Your task to perform on an android device: toggle data saver in the chrome app Image 0: 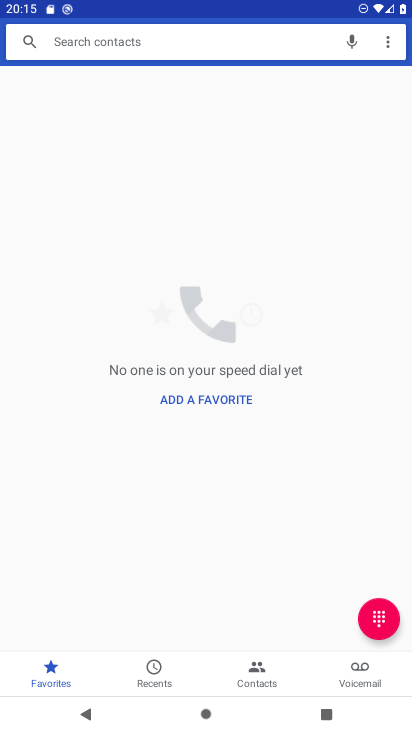
Step 0: press home button
Your task to perform on an android device: toggle data saver in the chrome app Image 1: 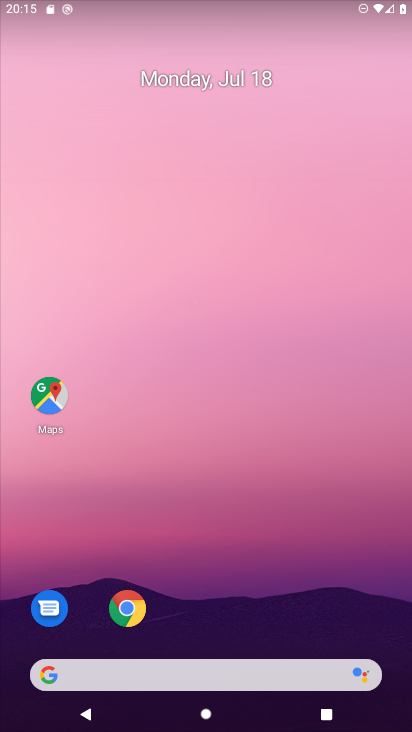
Step 1: click (130, 611)
Your task to perform on an android device: toggle data saver in the chrome app Image 2: 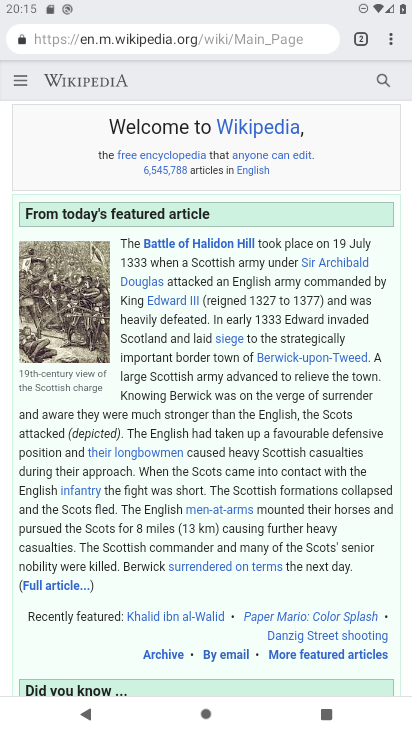
Step 2: click (386, 38)
Your task to perform on an android device: toggle data saver in the chrome app Image 3: 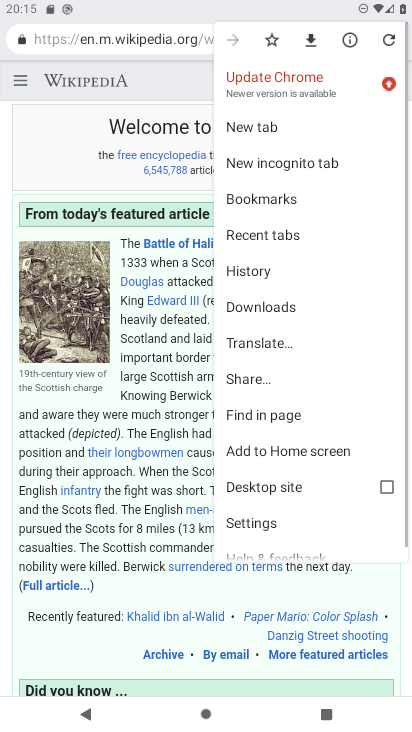
Step 3: click (272, 527)
Your task to perform on an android device: toggle data saver in the chrome app Image 4: 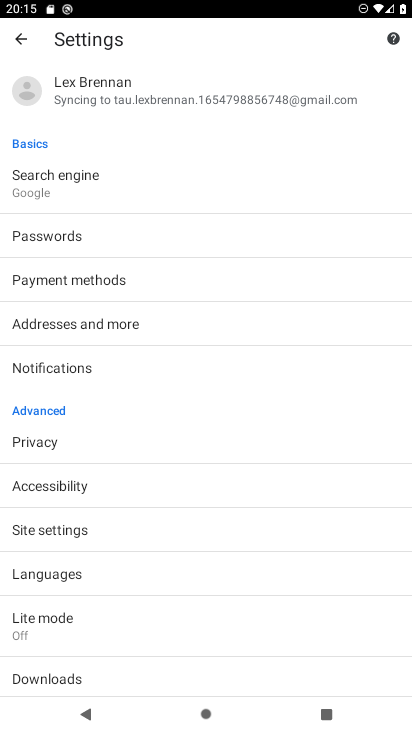
Step 4: drag from (67, 657) to (68, 496)
Your task to perform on an android device: toggle data saver in the chrome app Image 5: 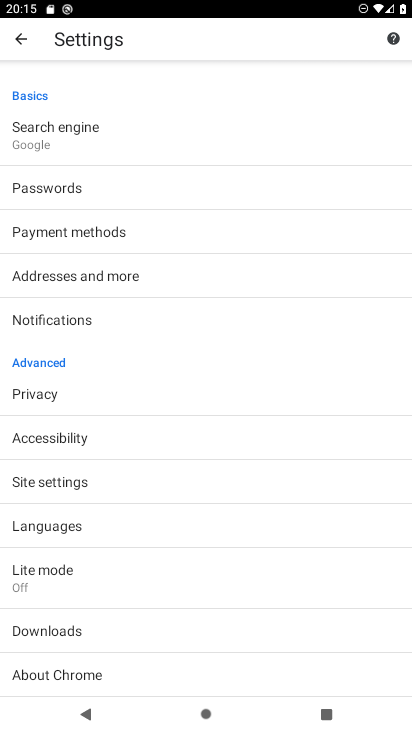
Step 5: click (84, 575)
Your task to perform on an android device: toggle data saver in the chrome app Image 6: 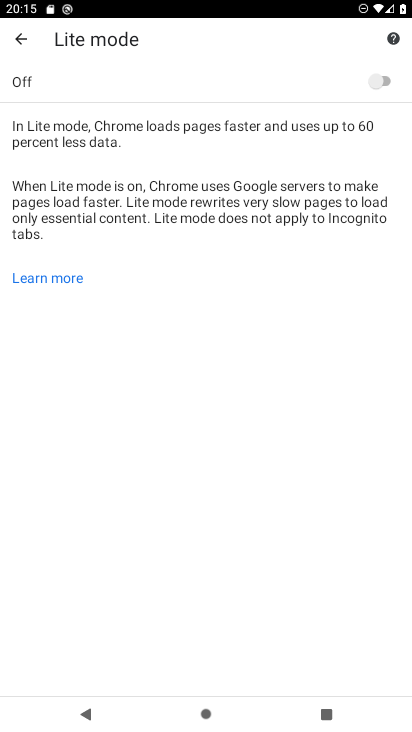
Step 6: click (383, 79)
Your task to perform on an android device: toggle data saver in the chrome app Image 7: 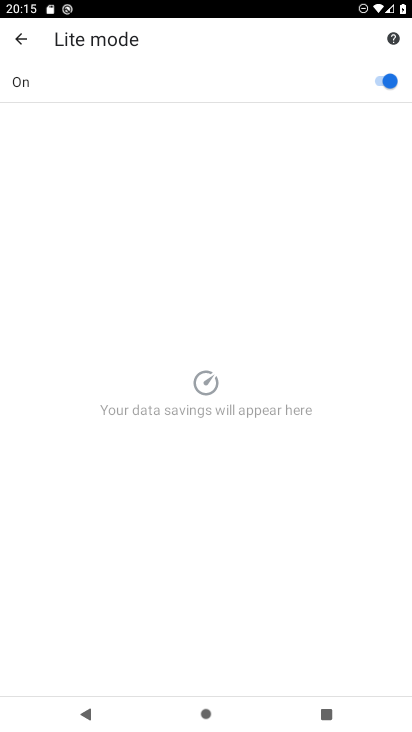
Step 7: task complete